Your task to perform on an android device: empty trash in the gmail app Image 0: 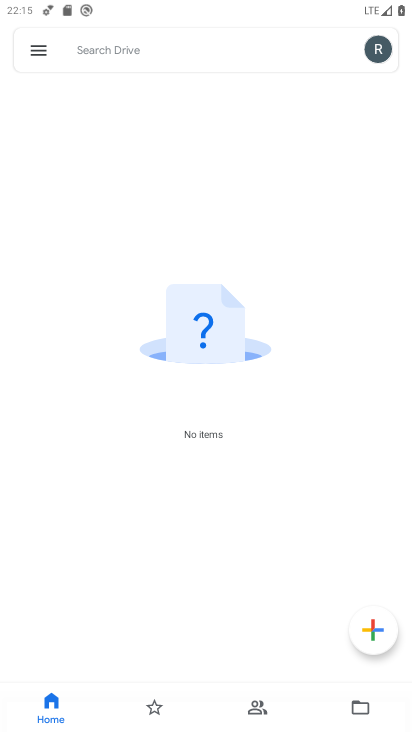
Step 0: press home button
Your task to perform on an android device: empty trash in the gmail app Image 1: 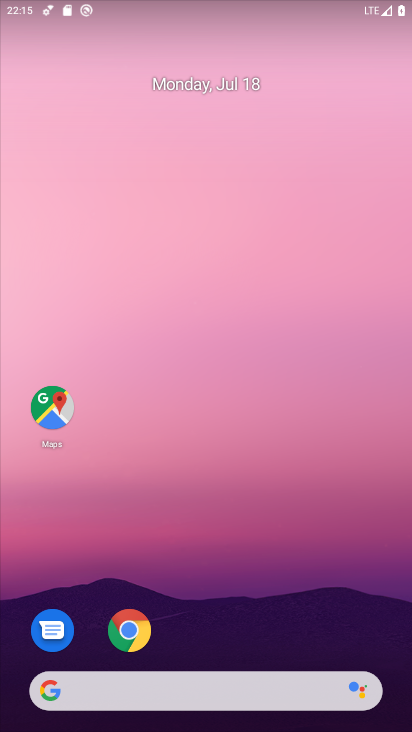
Step 1: drag from (204, 685) to (211, 182)
Your task to perform on an android device: empty trash in the gmail app Image 2: 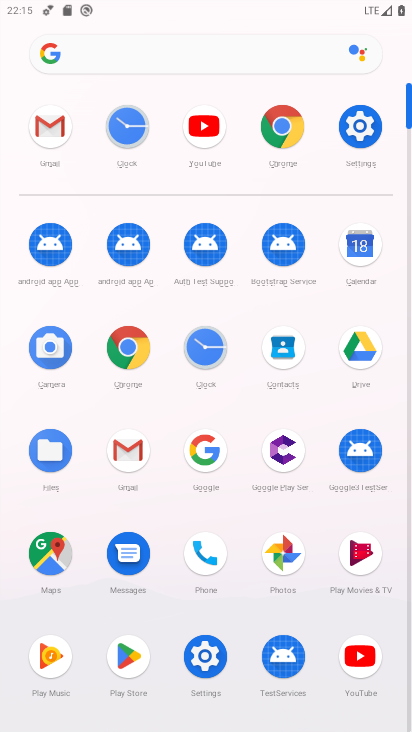
Step 2: click (52, 116)
Your task to perform on an android device: empty trash in the gmail app Image 3: 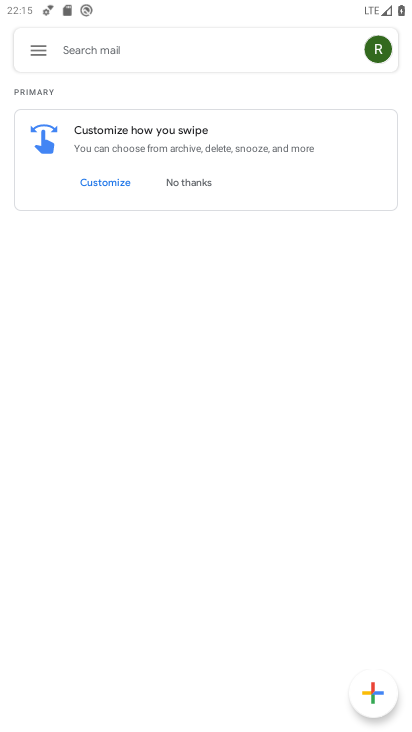
Step 3: click (38, 42)
Your task to perform on an android device: empty trash in the gmail app Image 4: 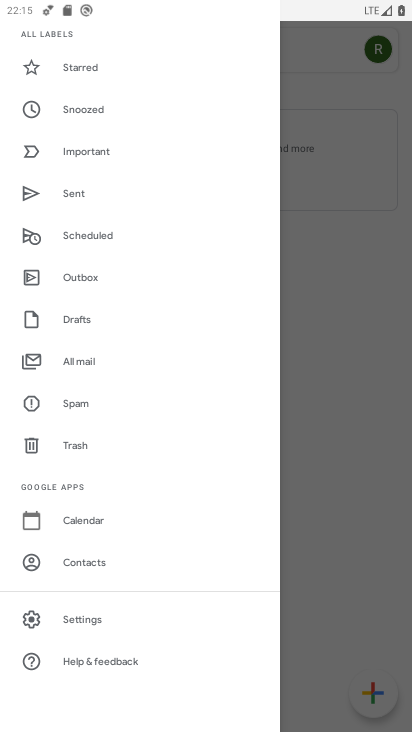
Step 4: click (83, 446)
Your task to perform on an android device: empty trash in the gmail app Image 5: 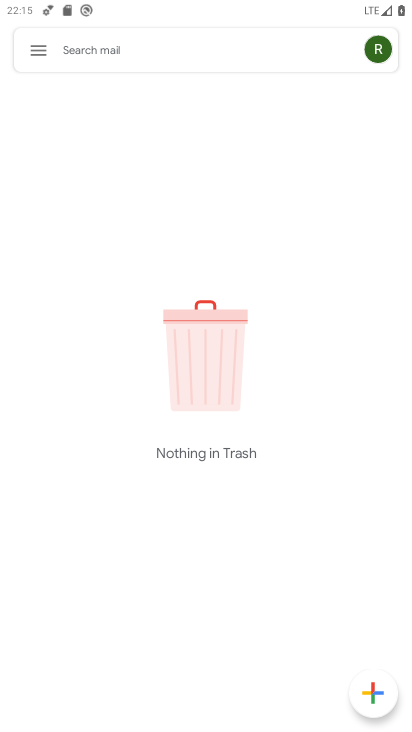
Step 5: task complete